Your task to perform on an android device: Open ESPN.com Image 0: 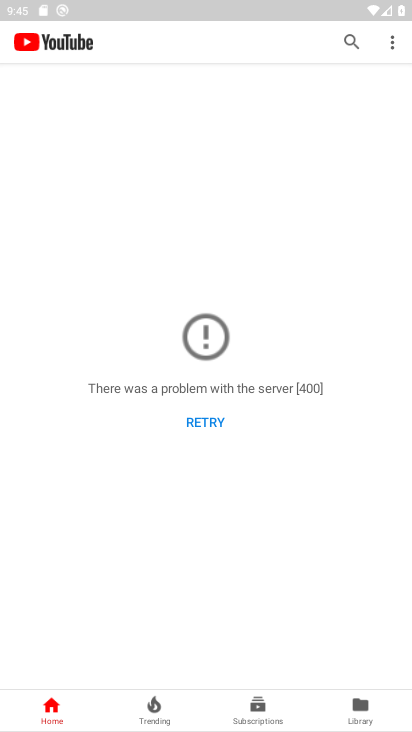
Step 0: press home button
Your task to perform on an android device: Open ESPN.com Image 1: 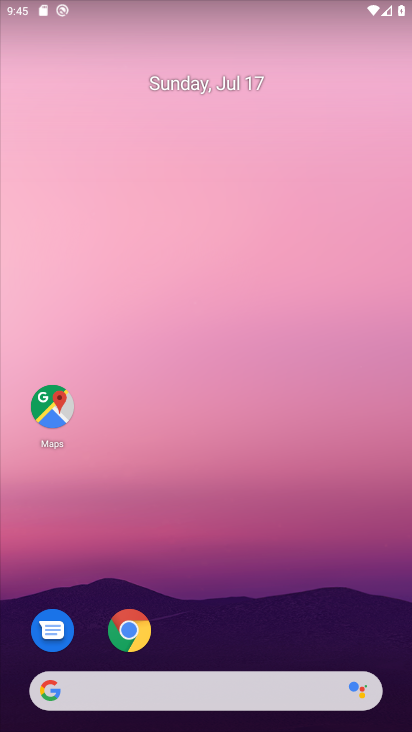
Step 1: drag from (220, 617) to (142, 1)
Your task to perform on an android device: Open ESPN.com Image 2: 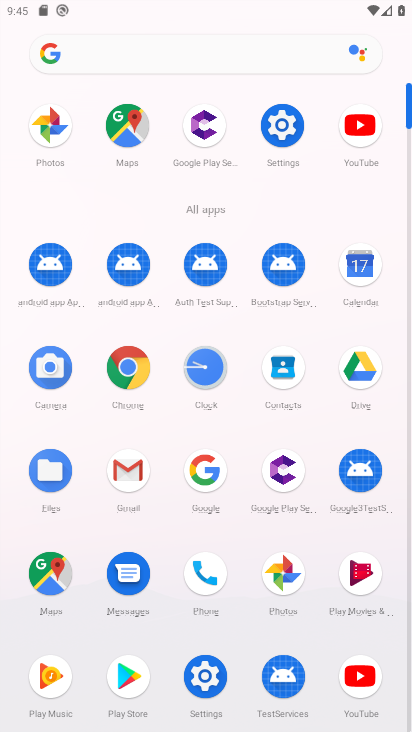
Step 2: click (133, 381)
Your task to perform on an android device: Open ESPN.com Image 3: 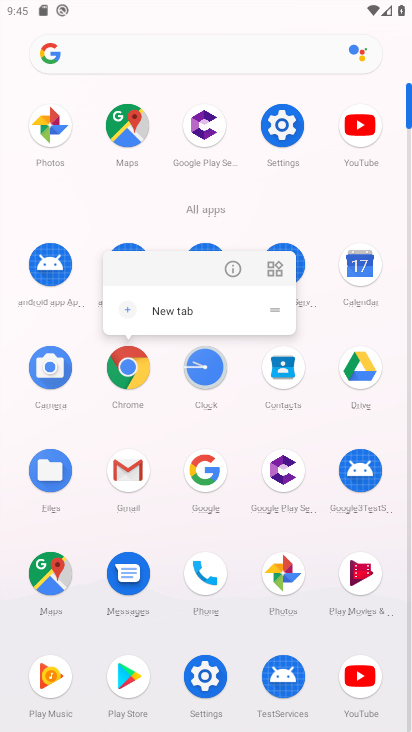
Step 3: click (136, 379)
Your task to perform on an android device: Open ESPN.com Image 4: 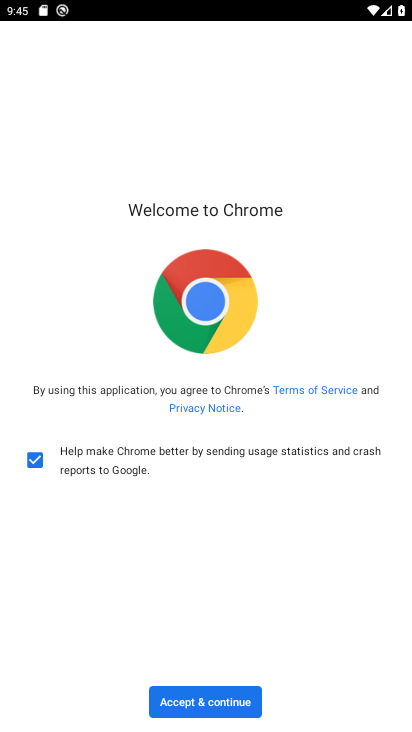
Step 4: click (208, 707)
Your task to perform on an android device: Open ESPN.com Image 5: 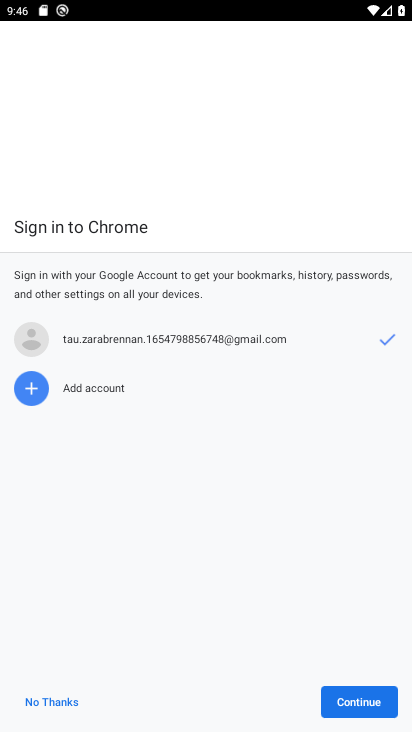
Step 5: click (375, 706)
Your task to perform on an android device: Open ESPN.com Image 6: 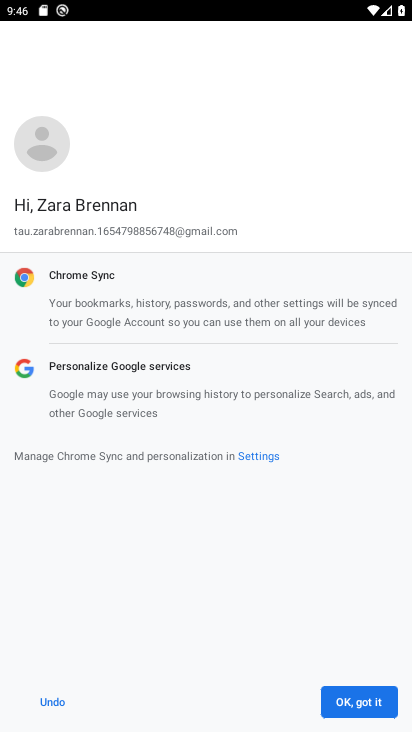
Step 6: click (365, 700)
Your task to perform on an android device: Open ESPN.com Image 7: 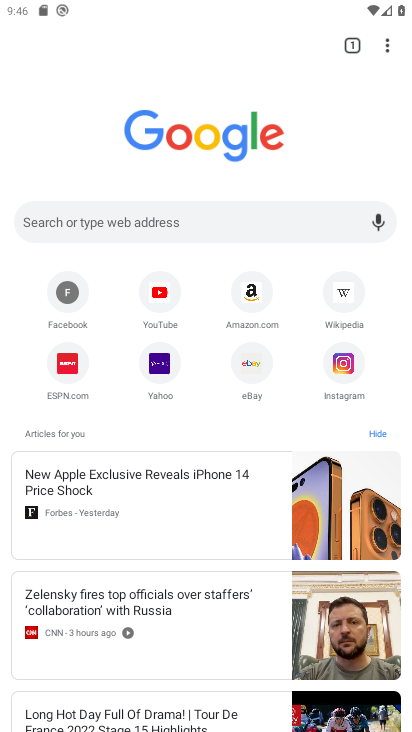
Step 7: click (76, 387)
Your task to perform on an android device: Open ESPN.com Image 8: 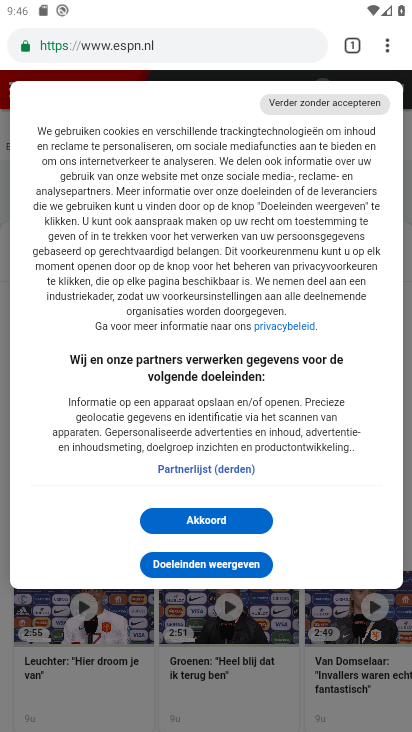
Step 8: task complete